Your task to perform on an android device: change notifications settings Image 0: 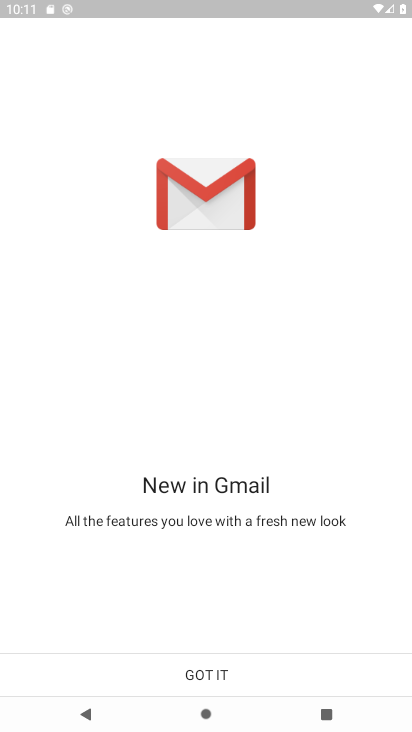
Step 0: press home button
Your task to perform on an android device: change notifications settings Image 1: 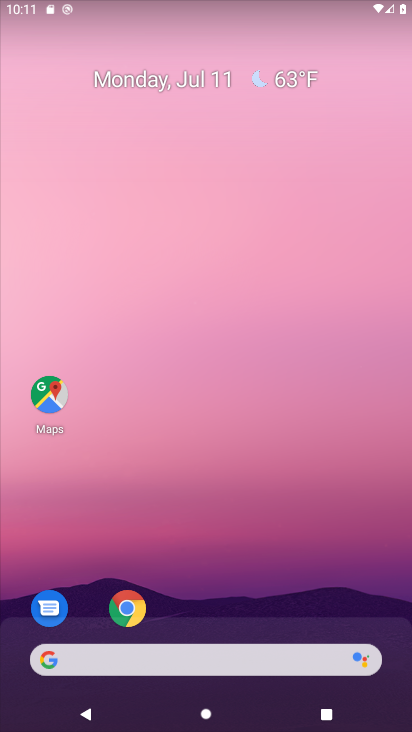
Step 1: drag from (242, 582) to (227, 16)
Your task to perform on an android device: change notifications settings Image 2: 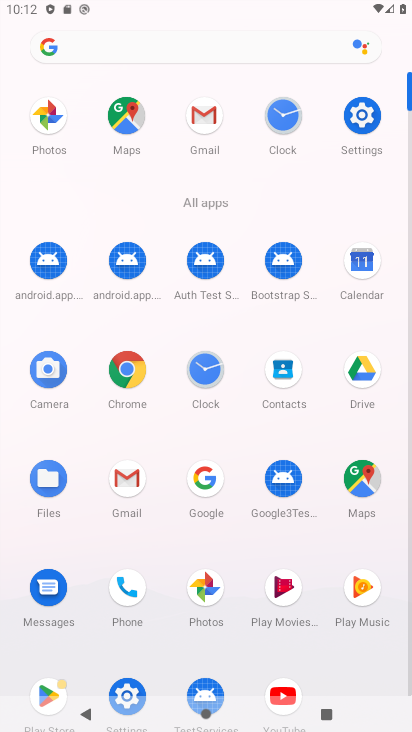
Step 2: click (360, 105)
Your task to perform on an android device: change notifications settings Image 3: 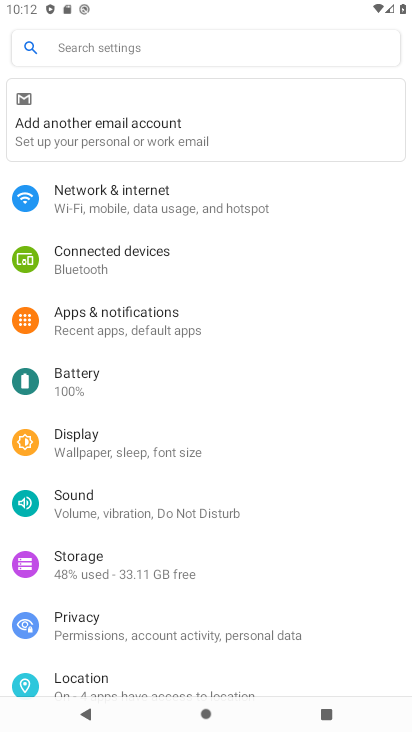
Step 3: click (150, 324)
Your task to perform on an android device: change notifications settings Image 4: 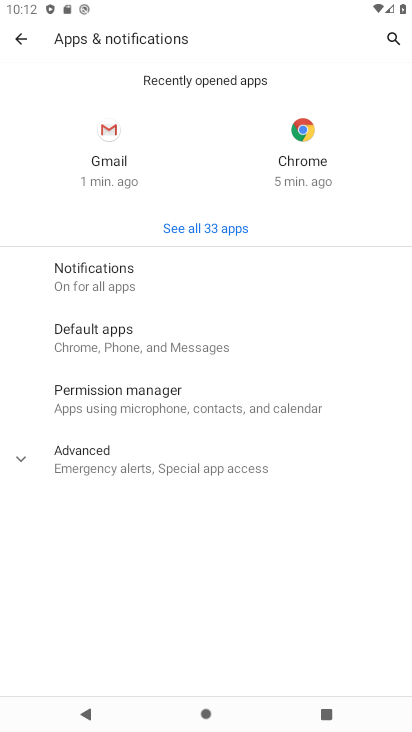
Step 4: click (165, 270)
Your task to perform on an android device: change notifications settings Image 5: 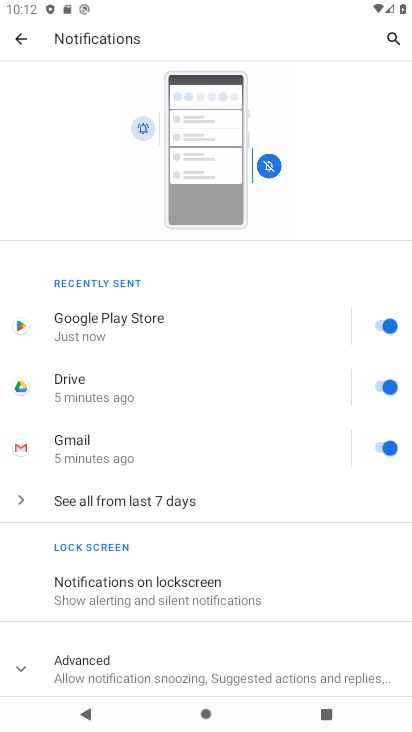
Step 5: click (148, 506)
Your task to perform on an android device: change notifications settings Image 6: 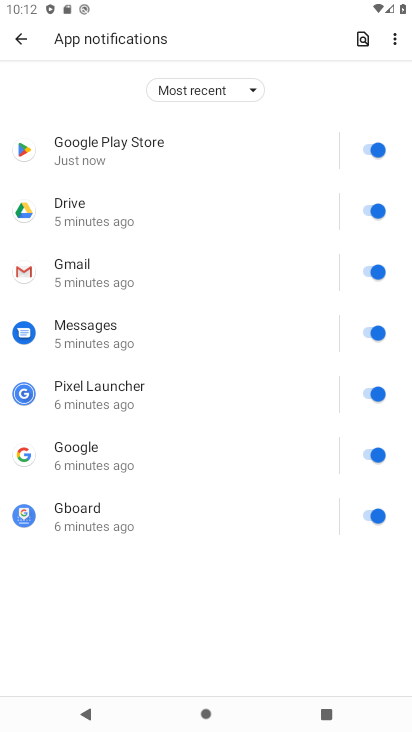
Step 6: click (376, 140)
Your task to perform on an android device: change notifications settings Image 7: 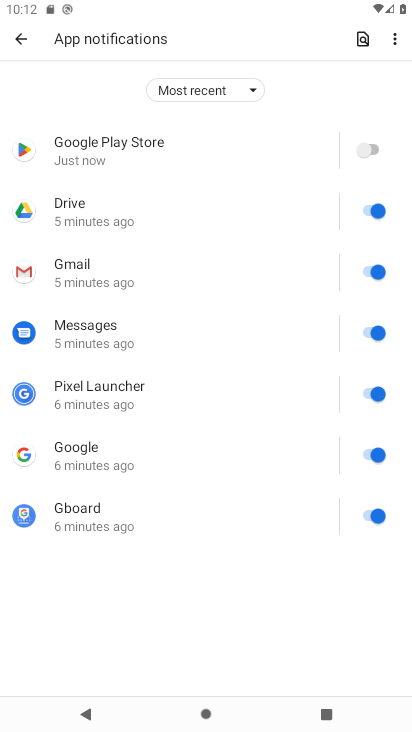
Step 7: click (367, 222)
Your task to perform on an android device: change notifications settings Image 8: 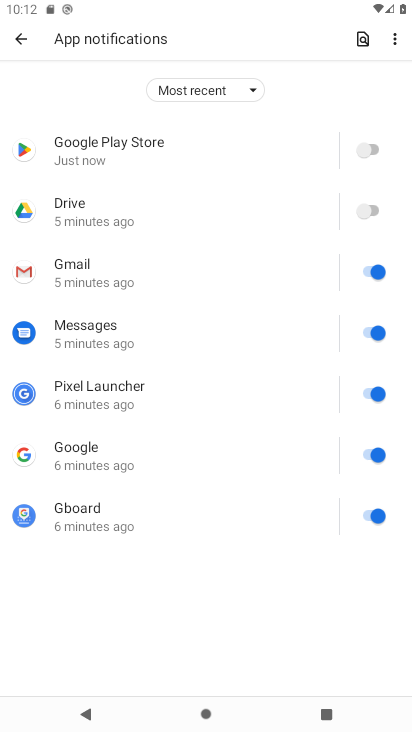
Step 8: click (367, 275)
Your task to perform on an android device: change notifications settings Image 9: 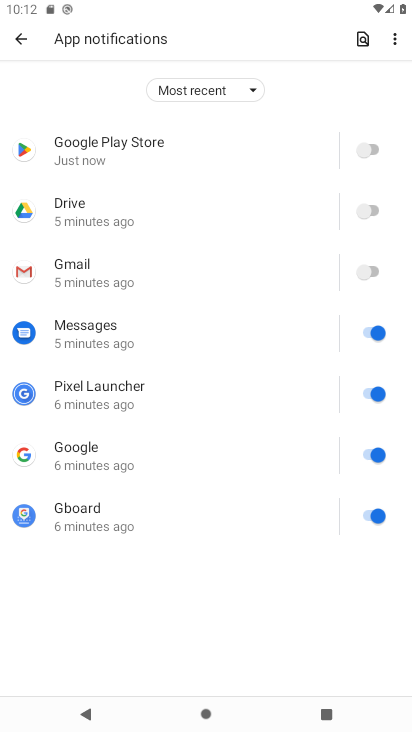
Step 9: click (382, 341)
Your task to perform on an android device: change notifications settings Image 10: 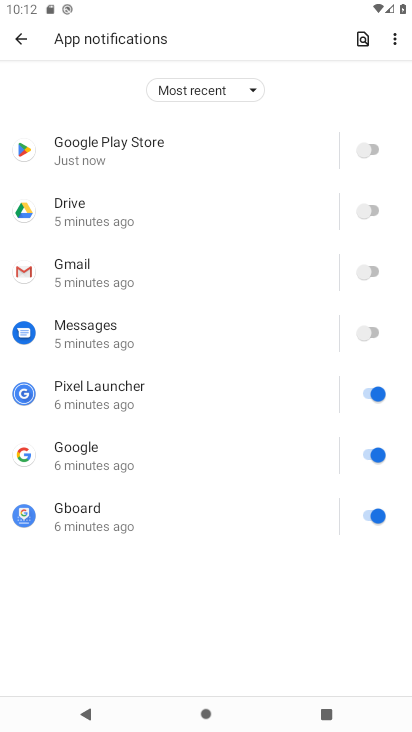
Step 10: click (381, 390)
Your task to perform on an android device: change notifications settings Image 11: 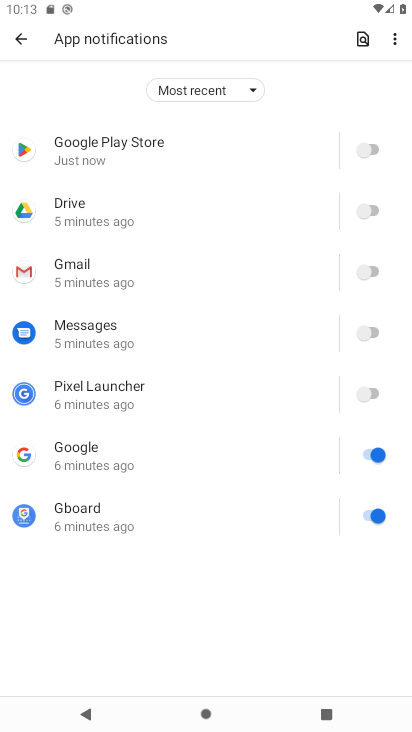
Step 11: click (373, 465)
Your task to perform on an android device: change notifications settings Image 12: 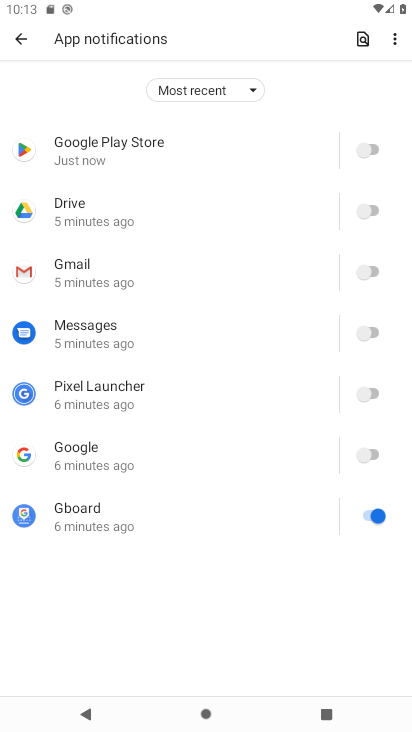
Step 12: click (373, 517)
Your task to perform on an android device: change notifications settings Image 13: 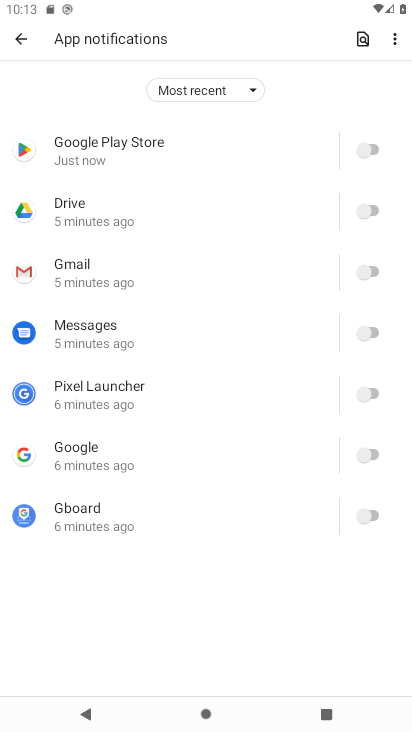
Step 13: click (25, 49)
Your task to perform on an android device: change notifications settings Image 14: 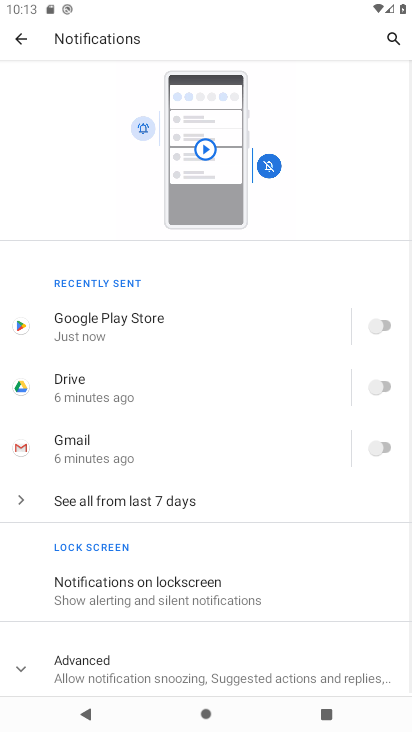
Step 14: click (158, 587)
Your task to perform on an android device: change notifications settings Image 15: 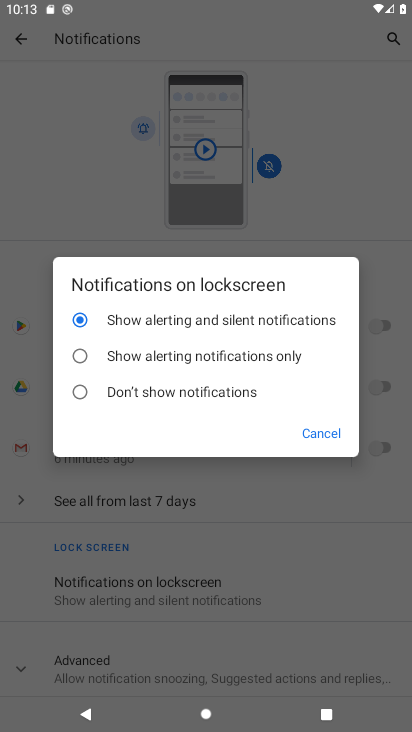
Step 15: click (254, 350)
Your task to perform on an android device: change notifications settings Image 16: 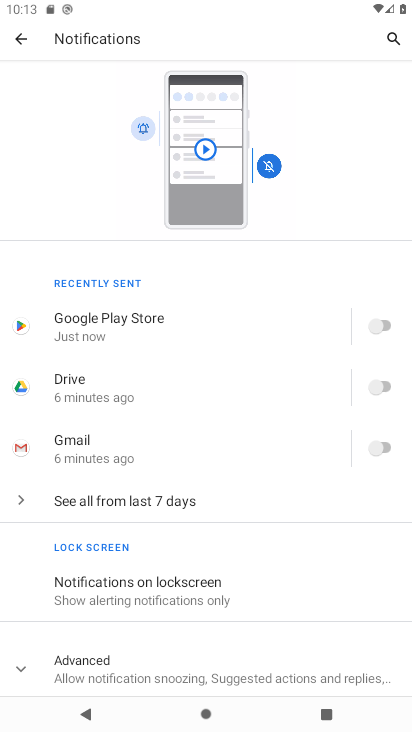
Step 16: click (141, 679)
Your task to perform on an android device: change notifications settings Image 17: 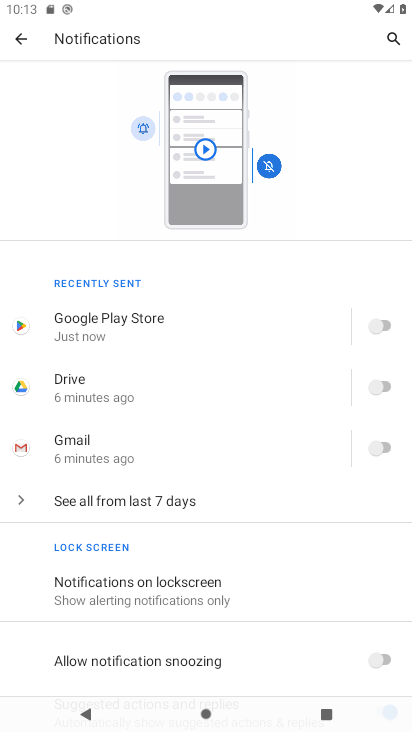
Step 17: drag from (147, 662) to (215, 191)
Your task to perform on an android device: change notifications settings Image 18: 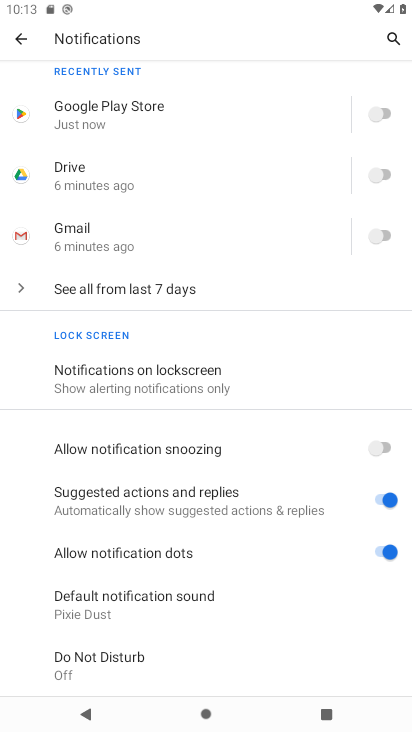
Step 18: click (378, 448)
Your task to perform on an android device: change notifications settings Image 19: 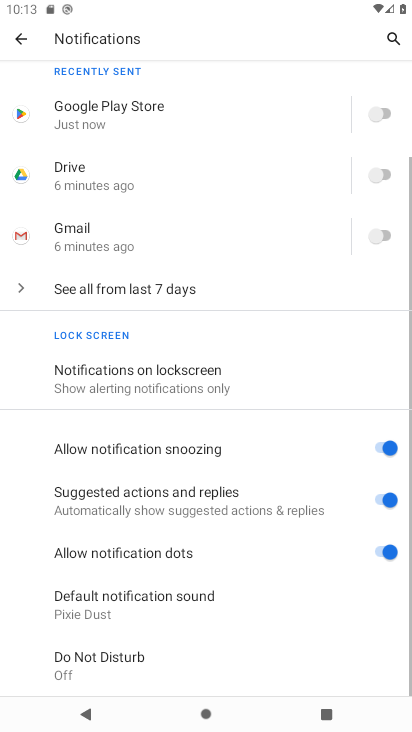
Step 19: click (387, 484)
Your task to perform on an android device: change notifications settings Image 20: 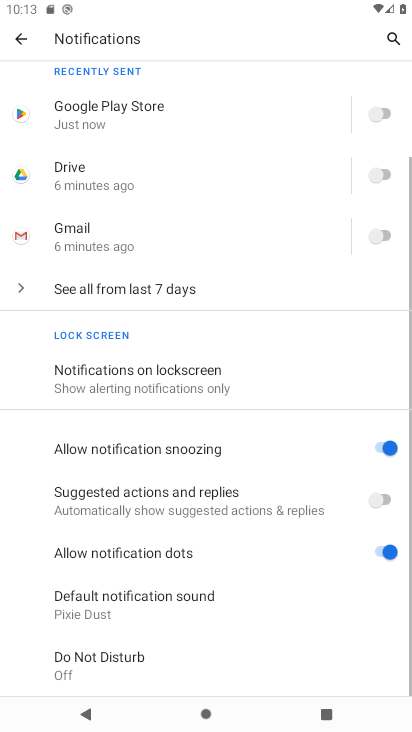
Step 20: click (384, 543)
Your task to perform on an android device: change notifications settings Image 21: 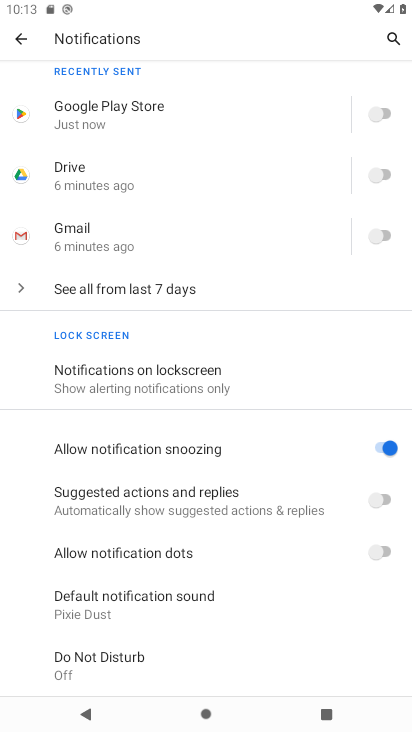
Step 21: task complete